Your task to perform on an android device: turn smart compose on in the gmail app Image 0: 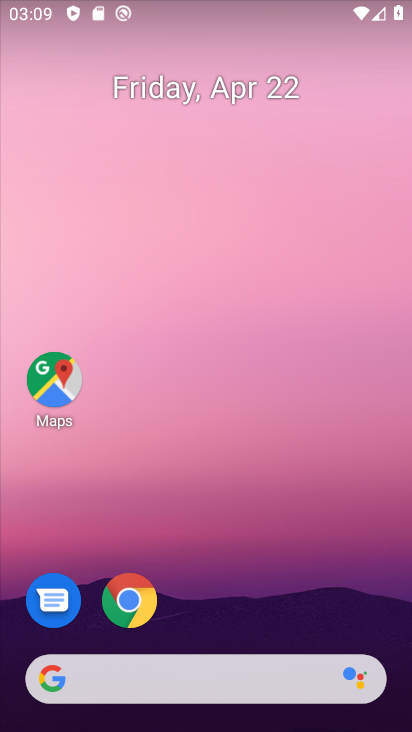
Step 0: drag from (255, 604) to (253, 195)
Your task to perform on an android device: turn smart compose on in the gmail app Image 1: 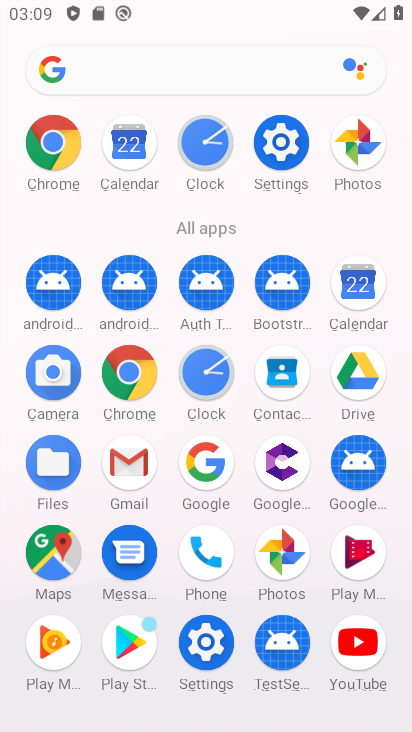
Step 1: click (140, 480)
Your task to perform on an android device: turn smart compose on in the gmail app Image 2: 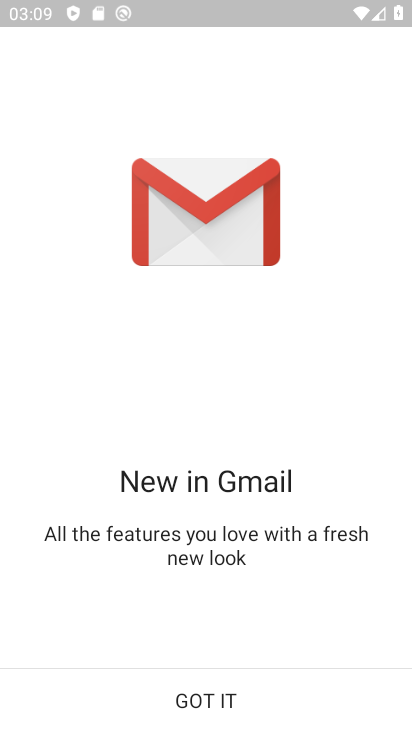
Step 2: click (188, 711)
Your task to perform on an android device: turn smart compose on in the gmail app Image 3: 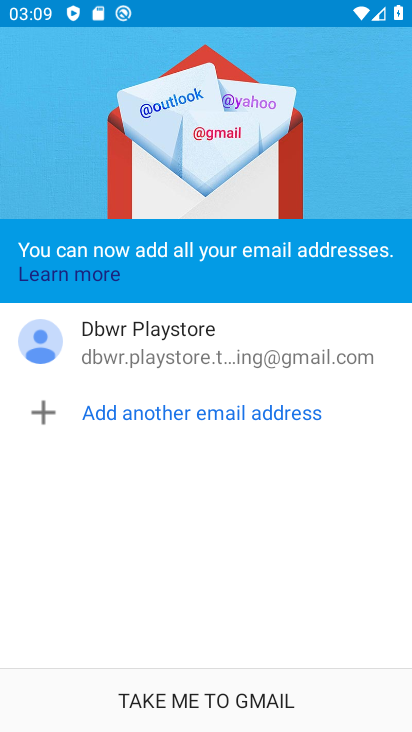
Step 3: click (200, 694)
Your task to perform on an android device: turn smart compose on in the gmail app Image 4: 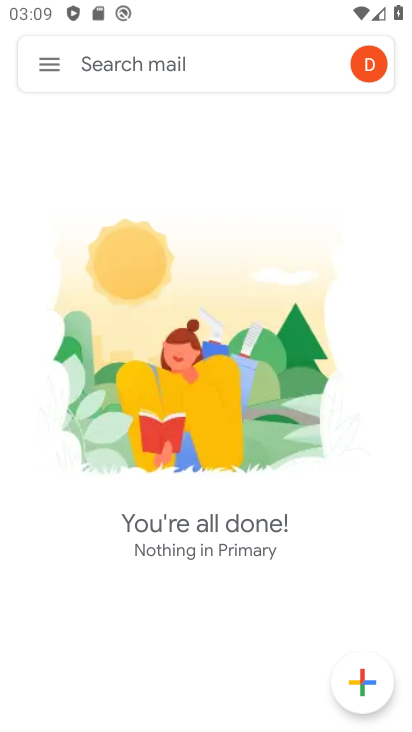
Step 4: click (51, 64)
Your task to perform on an android device: turn smart compose on in the gmail app Image 5: 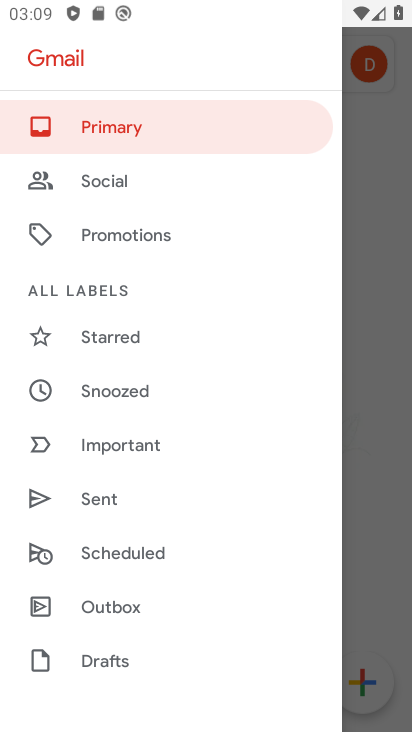
Step 5: drag from (184, 611) to (281, 246)
Your task to perform on an android device: turn smart compose on in the gmail app Image 6: 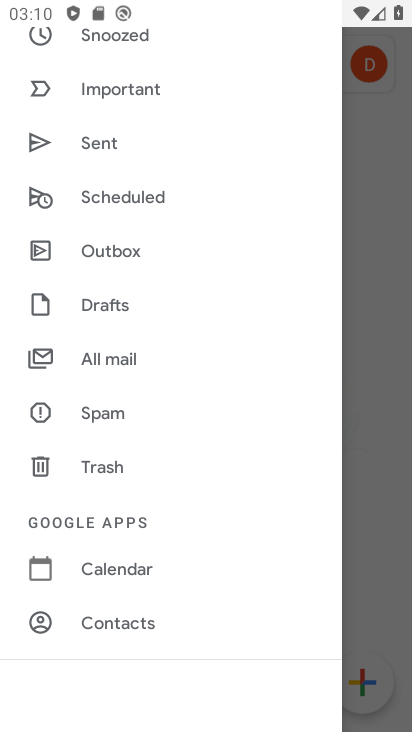
Step 6: drag from (179, 541) to (210, 351)
Your task to perform on an android device: turn smart compose on in the gmail app Image 7: 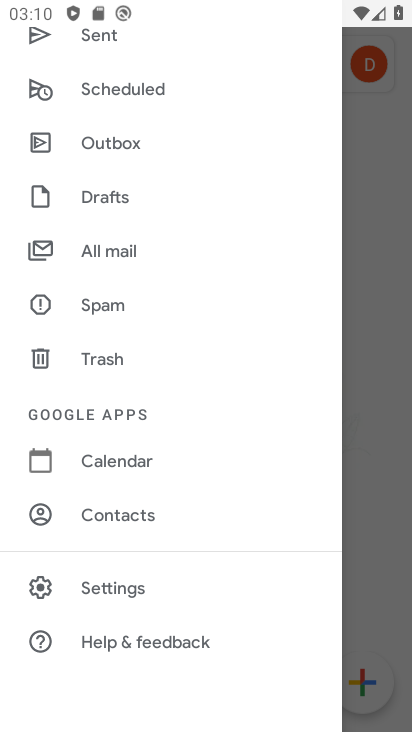
Step 7: click (111, 591)
Your task to perform on an android device: turn smart compose on in the gmail app Image 8: 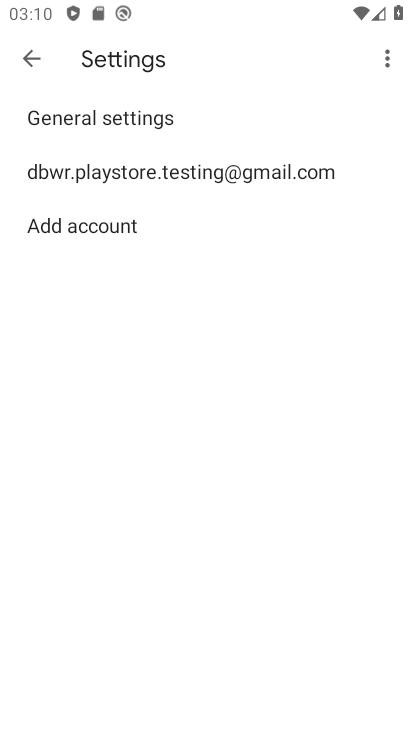
Step 8: click (302, 173)
Your task to perform on an android device: turn smart compose on in the gmail app Image 9: 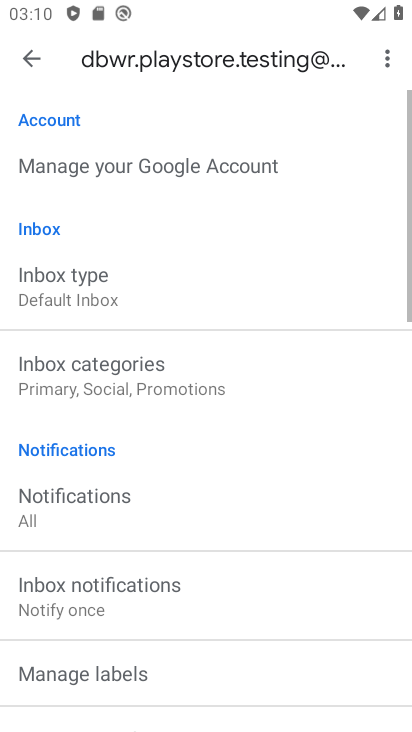
Step 9: task complete